Your task to perform on an android device: Open maps Image 0: 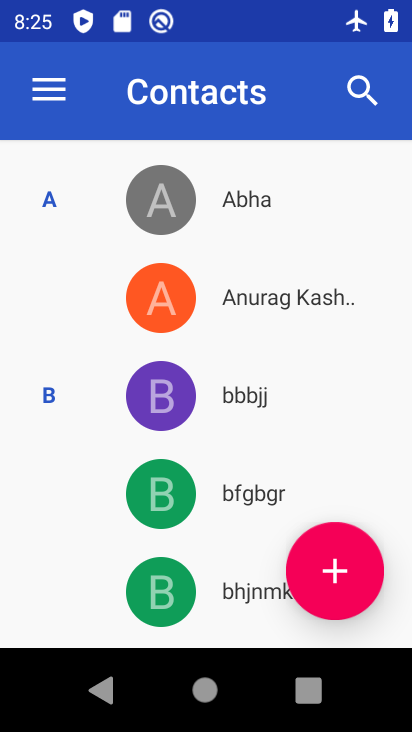
Step 0: press home button
Your task to perform on an android device: Open maps Image 1: 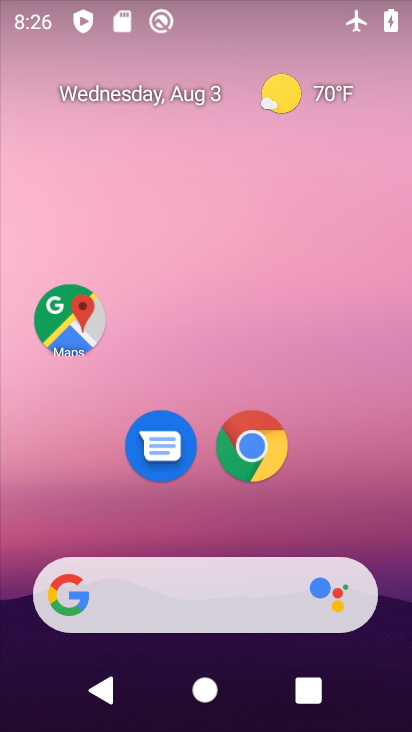
Step 1: click (68, 320)
Your task to perform on an android device: Open maps Image 2: 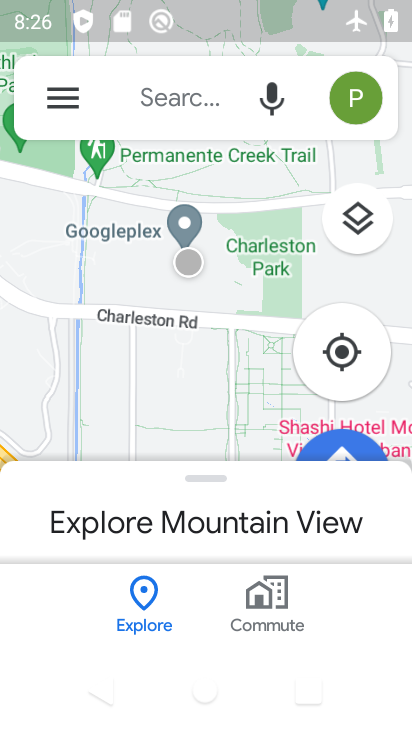
Step 2: task complete